Your task to perform on an android device: manage bookmarks in the chrome app Image 0: 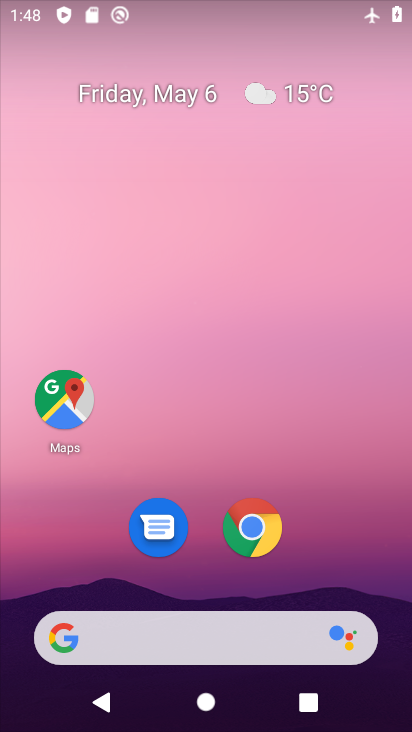
Step 0: click (263, 540)
Your task to perform on an android device: manage bookmarks in the chrome app Image 1: 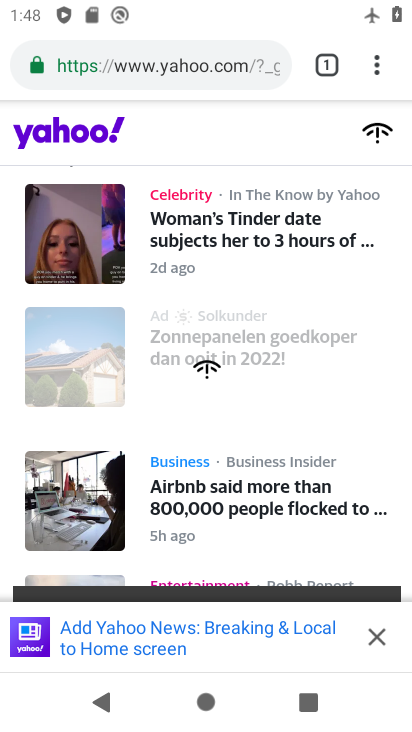
Step 1: drag from (377, 62) to (147, 239)
Your task to perform on an android device: manage bookmarks in the chrome app Image 2: 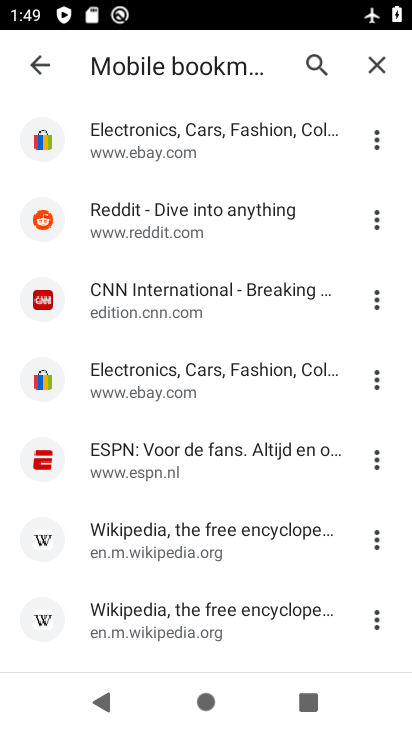
Step 2: click (374, 138)
Your task to perform on an android device: manage bookmarks in the chrome app Image 3: 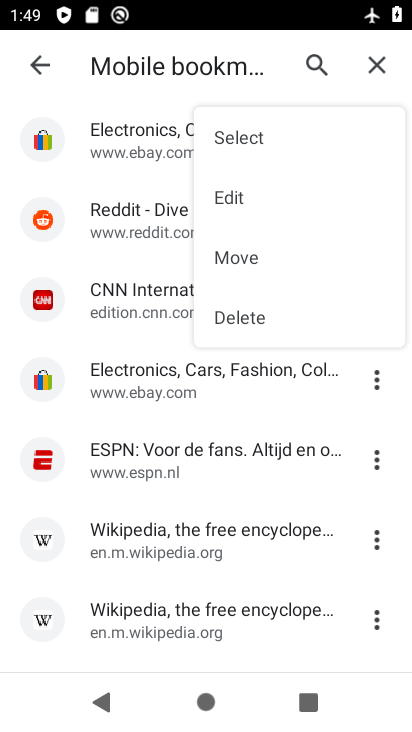
Step 3: click (231, 315)
Your task to perform on an android device: manage bookmarks in the chrome app Image 4: 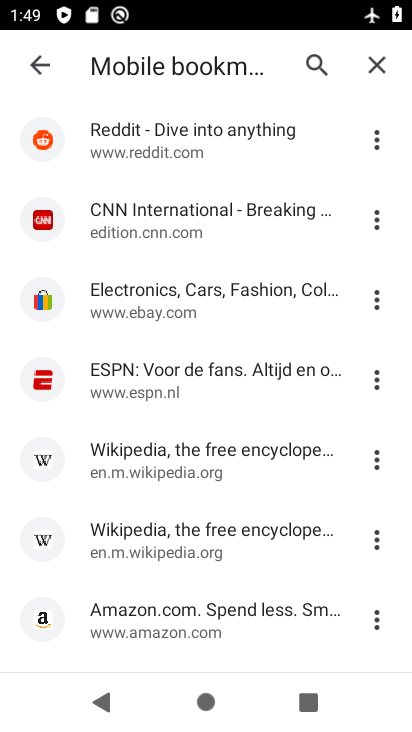
Step 4: task complete